Your task to perform on an android device: Show me the alarms in the clock app Image 0: 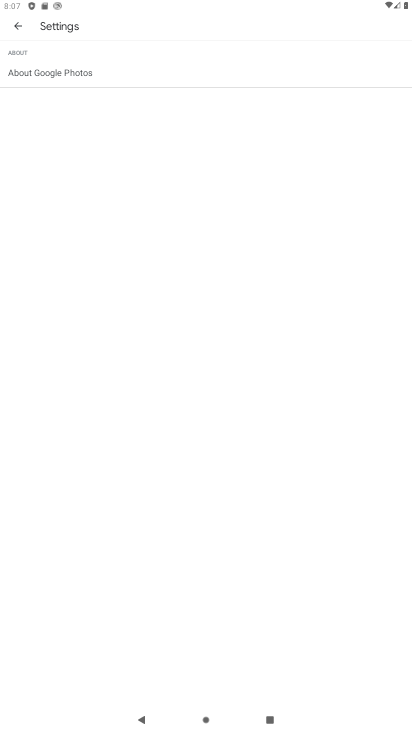
Step 0: press home button
Your task to perform on an android device: Show me the alarms in the clock app Image 1: 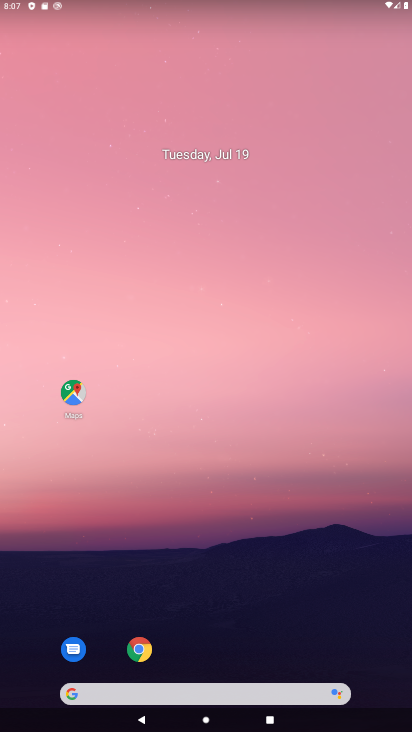
Step 1: drag from (342, 657) to (214, 21)
Your task to perform on an android device: Show me the alarms in the clock app Image 2: 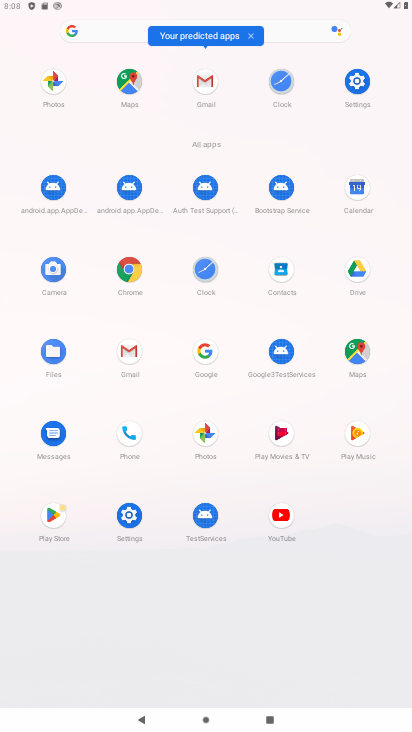
Step 2: click (198, 264)
Your task to perform on an android device: Show me the alarms in the clock app Image 3: 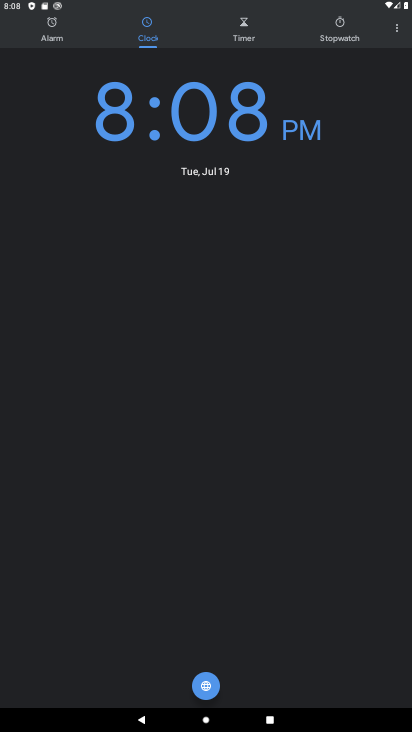
Step 3: click (61, 23)
Your task to perform on an android device: Show me the alarms in the clock app Image 4: 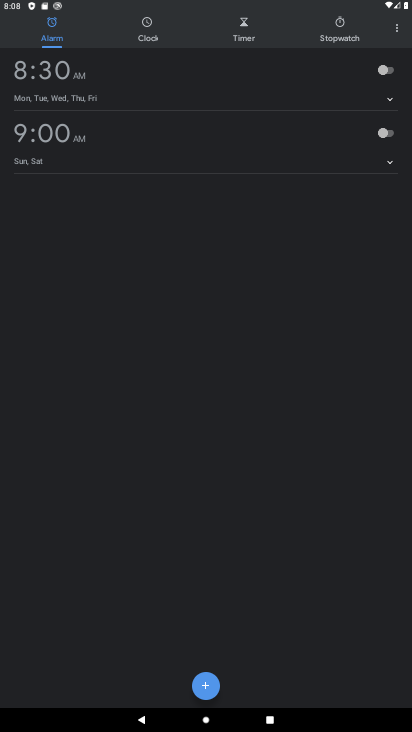
Step 4: task complete